Your task to perform on an android device: Open Amazon Image 0: 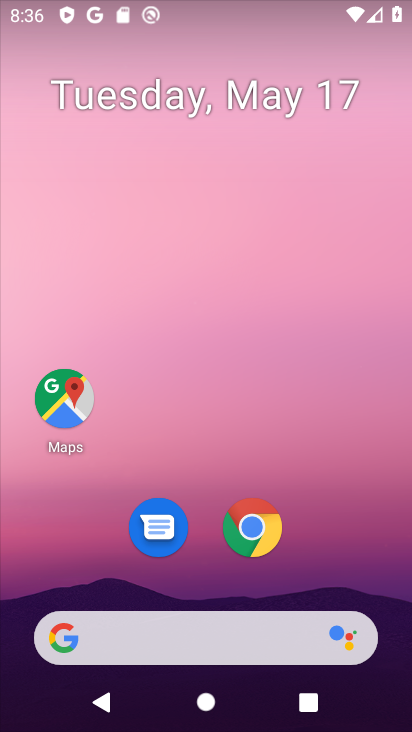
Step 0: click (246, 532)
Your task to perform on an android device: Open Amazon Image 1: 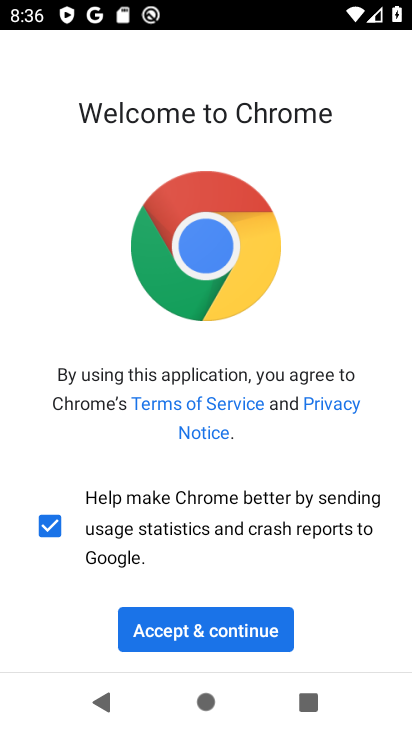
Step 1: click (131, 647)
Your task to perform on an android device: Open Amazon Image 2: 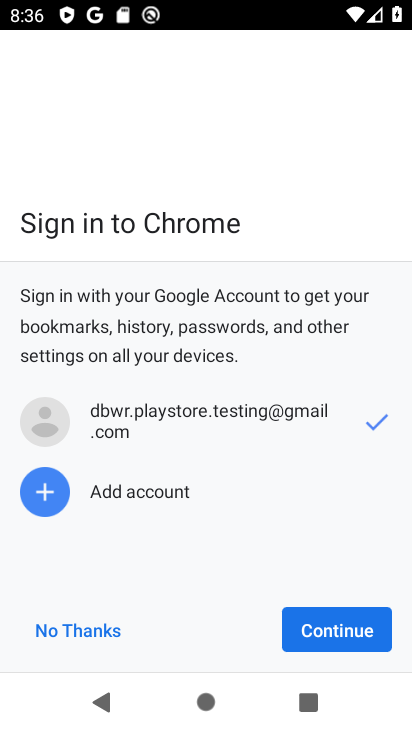
Step 2: click (321, 607)
Your task to perform on an android device: Open Amazon Image 3: 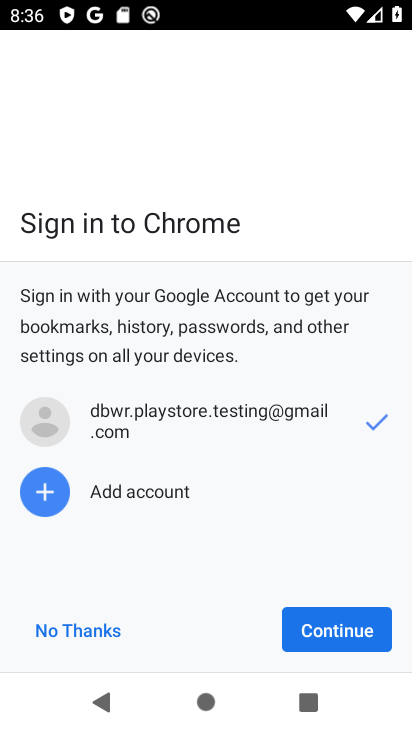
Step 3: click (319, 644)
Your task to perform on an android device: Open Amazon Image 4: 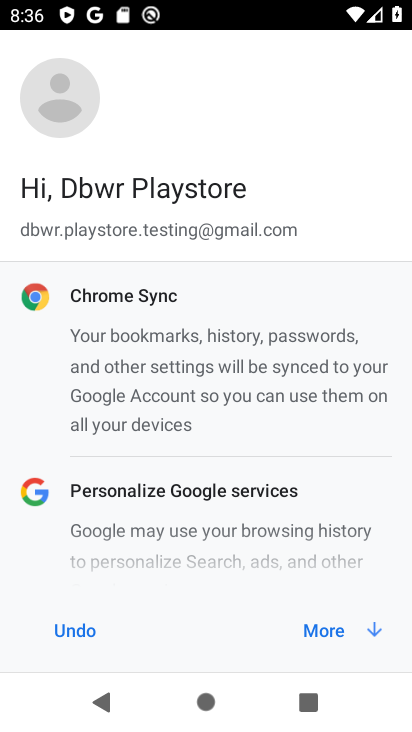
Step 4: click (313, 642)
Your task to perform on an android device: Open Amazon Image 5: 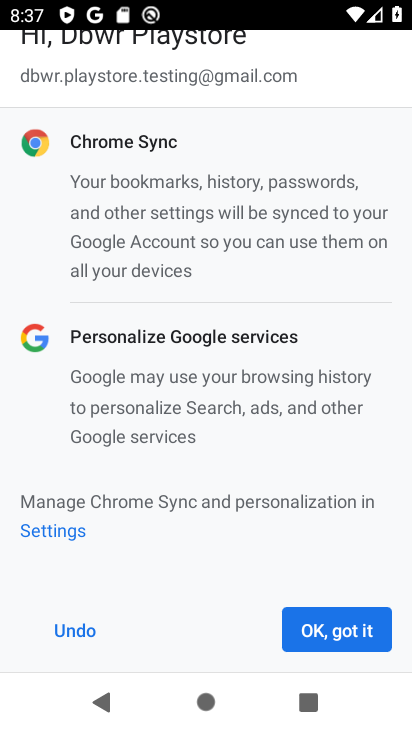
Step 5: click (320, 638)
Your task to perform on an android device: Open Amazon Image 6: 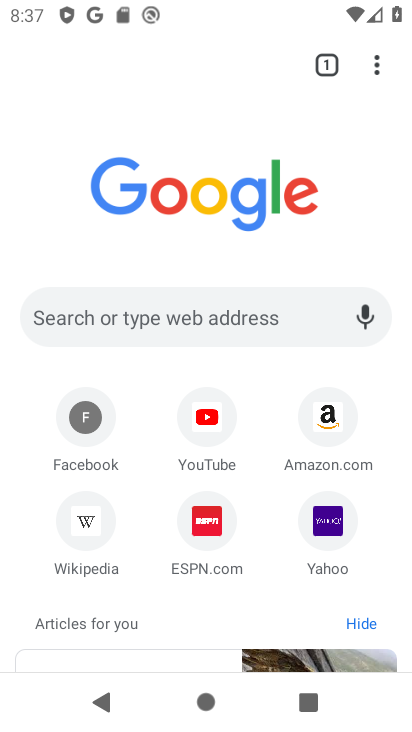
Step 6: click (325, 421)
Your task to perform on an android device: Open Amazon Image 7: 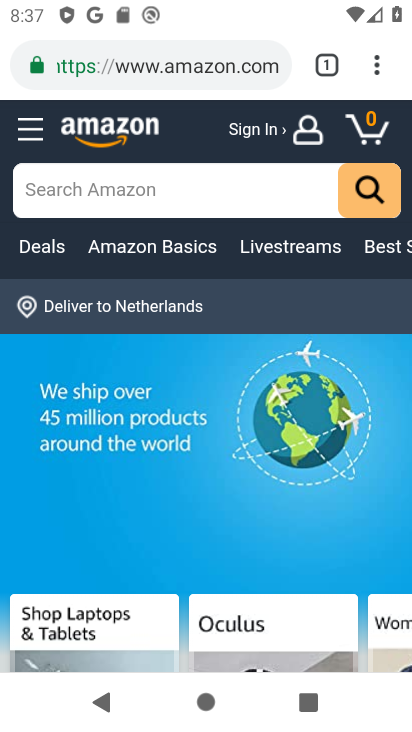
Step 7: task complete